Your task to perform on an android device: Go to privacy settings Image 0: 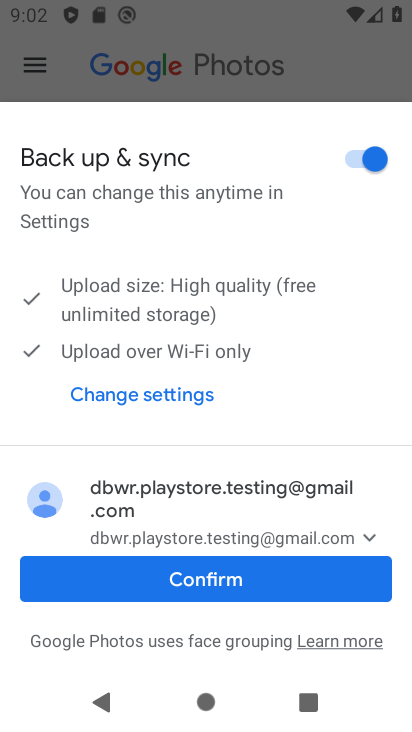
Step 0: press home button
Your task to perform on an android device: Go to privacy settings Image 1: 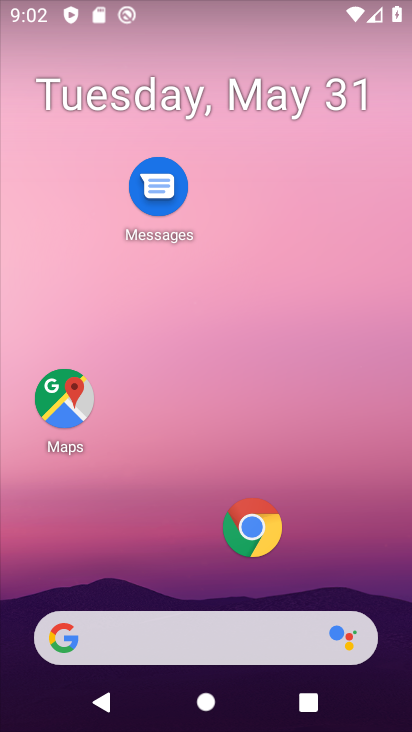
Step 1: drag from (191, 595) to (193, 219)
Your task to perform on an android device: Go to privacy settings Image 2: 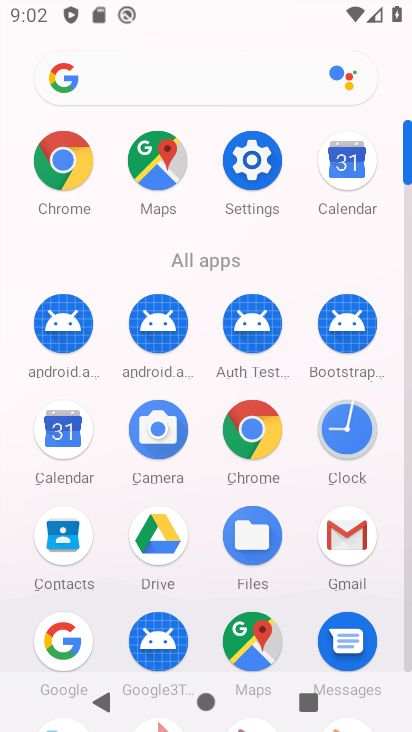
Step 2: click (260, 154)
Your task to perform on an android device: Go to privacy settings Image 3: 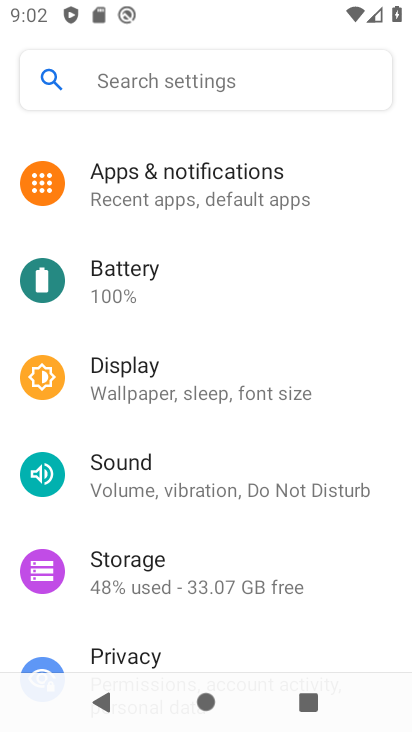
Step 3: drag from (205, 255) to (201, 521)
Your task to perform on an android device: Go to privacy settings Image 4: 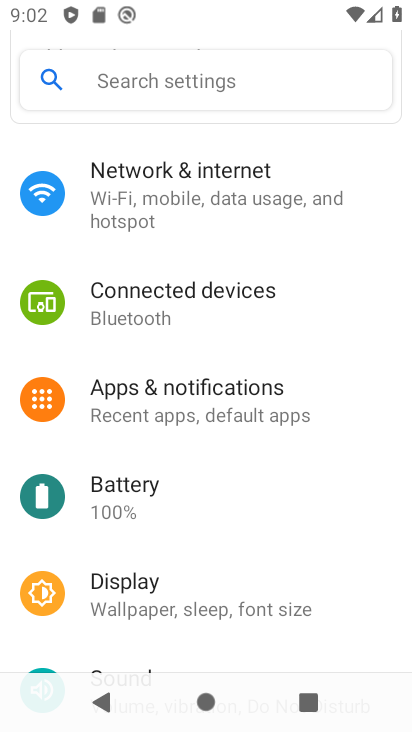
Step 4: drag from (180, 563) to (159, 196)
Your task to perform on an android device: Go to privacy settings Image 5: 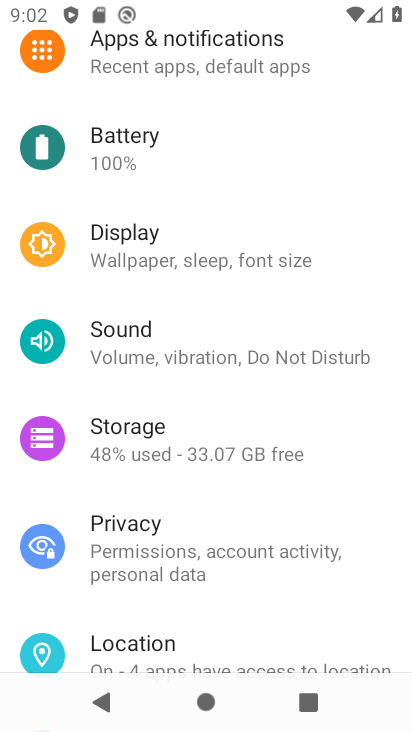
Step 5: click (163, 547)
Your task to perform on an android device: Go to privacy settings Image 6: 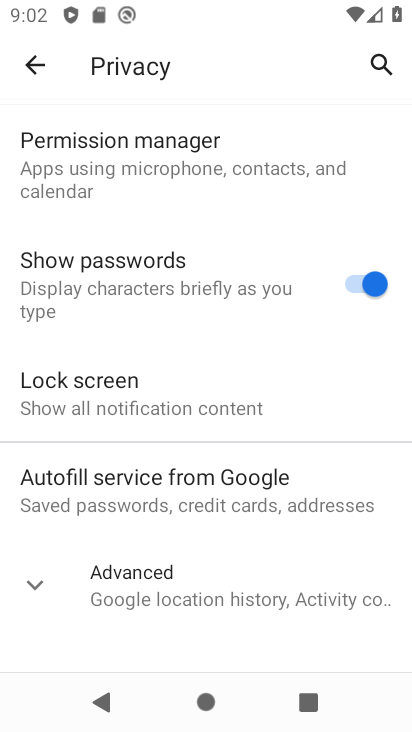
Step 6: click (198, 231)
Your task to perform on an android device: Go to privacy settings Image 7: 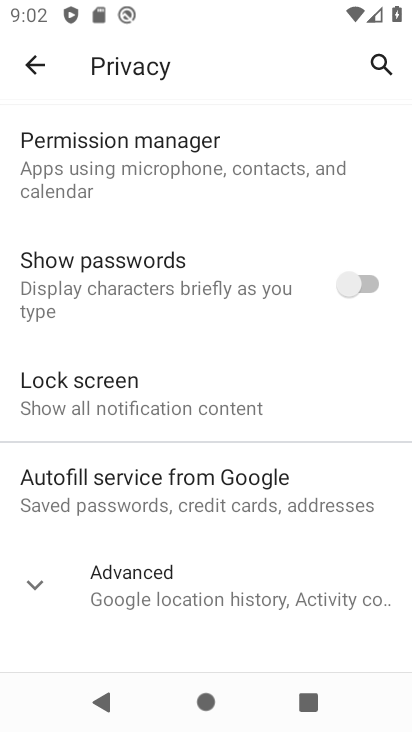
Step 7: task complete